Your task to perform on an android device: turn off javascript in the chrome app Image 0: 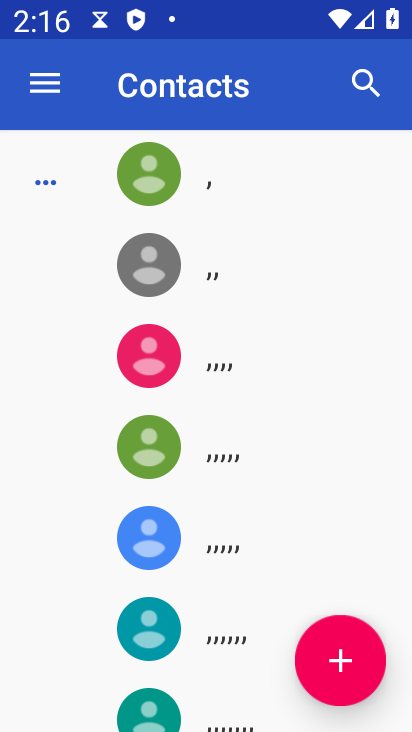
Step 0: press back button
Your task to perform on an android device: turn off javascript in the chrome app Image 1: 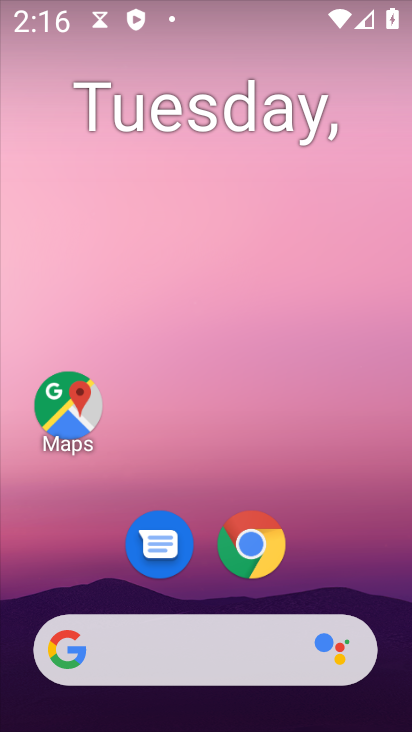
Step 1: drag from (348, 572) to (263, 9)
Your task to perform on an android device: turn off javascript in the chrome app Image 2: 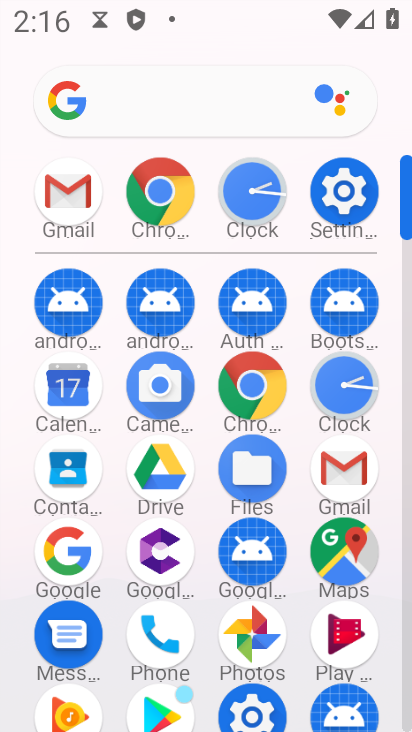
Step 2: drag from (6, 435) to (11, 266)
Your task to perform on an android device: turn off javascript in the chrome app Image 3: 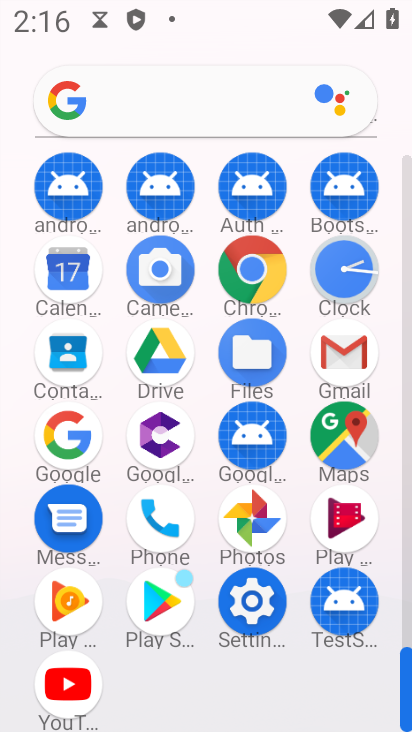
Step 3: click (247, 264)
Your task to perform on an android device: turn off javascript in the chrome app Image 4: 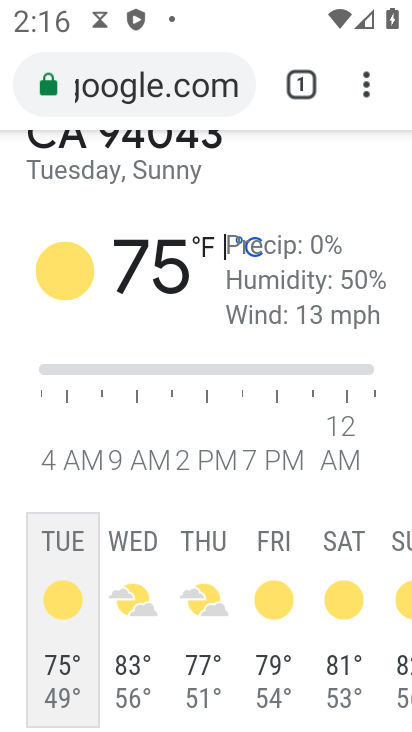
Step 4: drag from (362, 83) to (143, 595)
Your task to perform on an android device: turn off javascript in the chrome app Image 5: 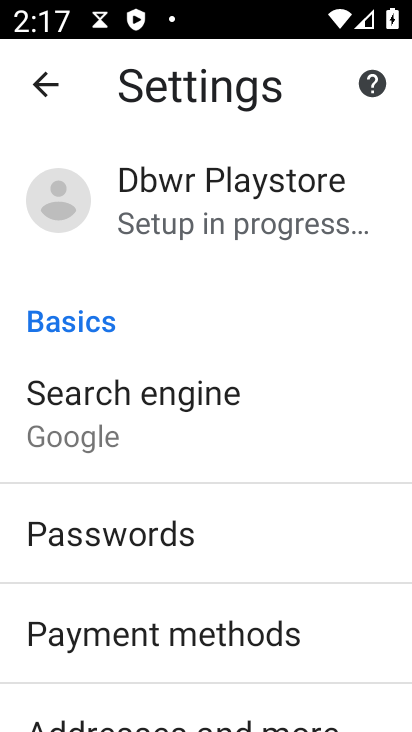
Step 5: drag from (277, 546) to (284, 233)
Your task to perform on an android device: turn off javascript in the chrome app Image 6: 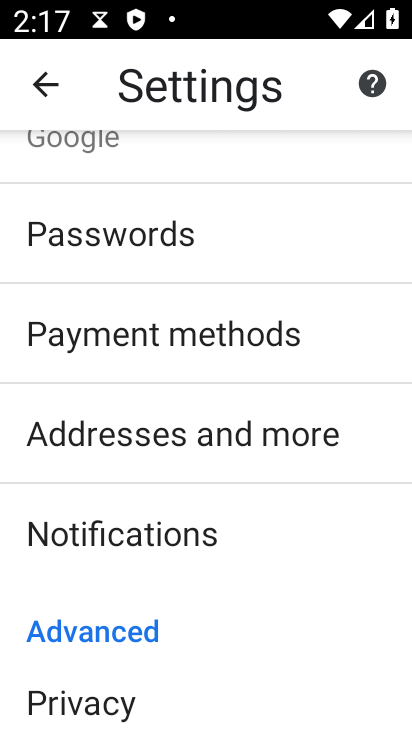
Step 6: drag from (221, 580) to (256, 182)
Your task to perform on an android device: turn off javascript in the chrome app Image 7: 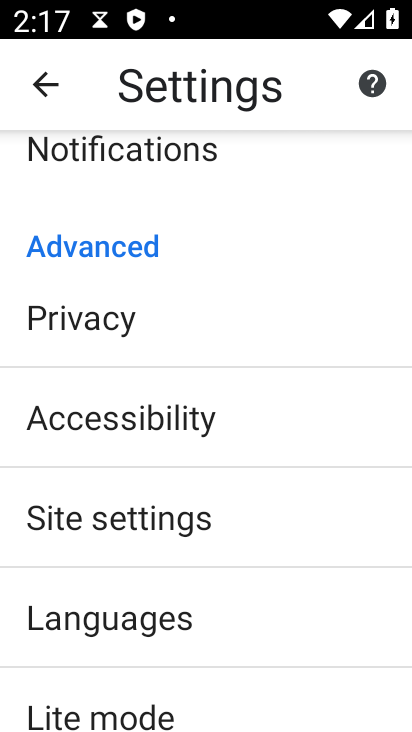
Step 7: drag from (203, 614) to (235, 208)
Your task to perform on an android device: turn off javascript in the chrome app Image 8: 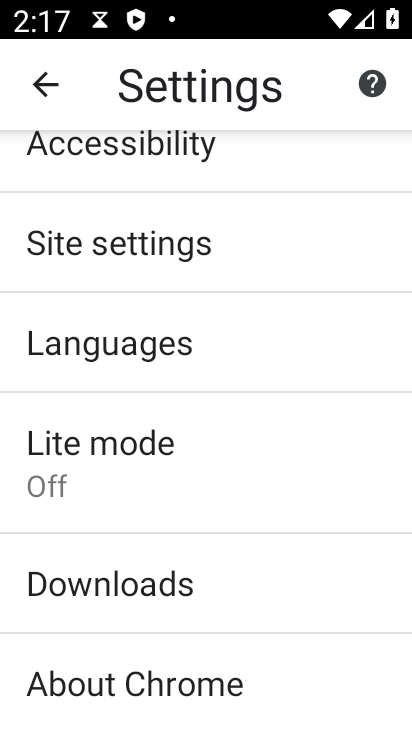
Step 8: drag from (180, 655) to (225, 240)
Your task to perform on an android device: turn off javascript in the chrome app Image 9: 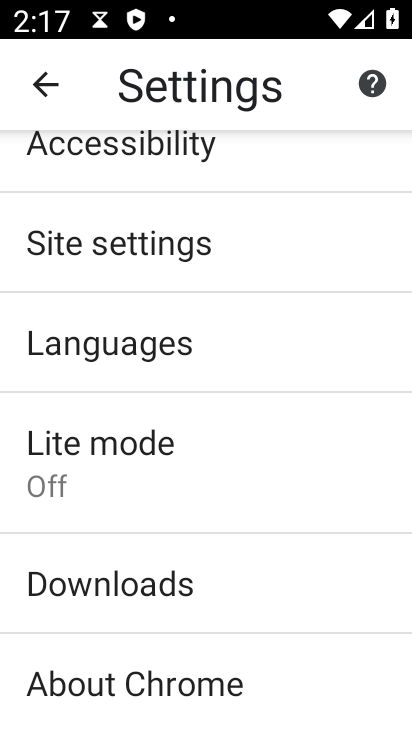
Step 9: click (167, 244)
Your task to perform on an android device: turn off javascript in the chrome app Image 10: 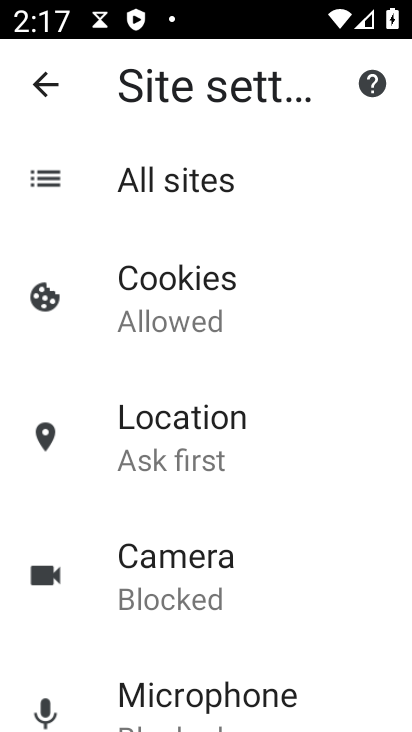
Step 10: drag from (244, 607) to (278, 205)
Your task to perform on an android device: turn off javascript in the chrome app Image 11: 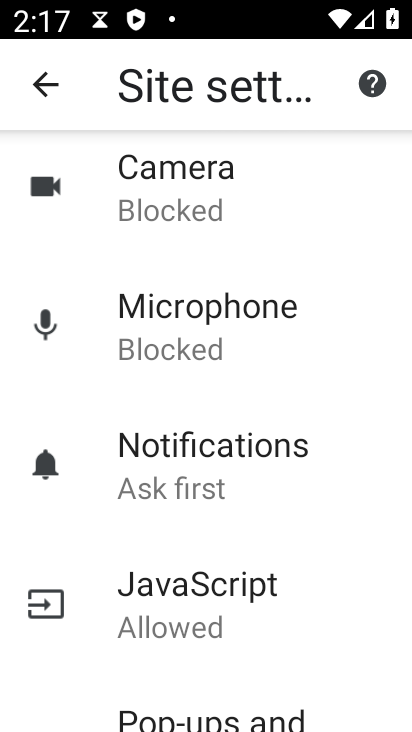
Step 11: click (212, 601)
Your task to perform on an android device: turn off javascript in the chrome app Image 12: 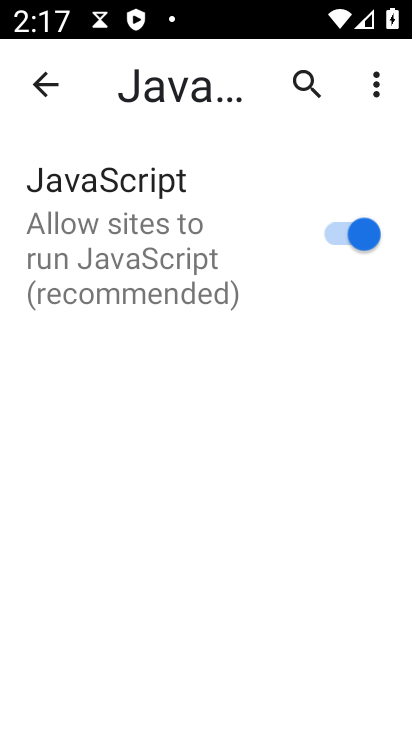
Step 12: click (338, 231)
Your task to perform on an android device: turn off javascript in the chrome app Image 13: 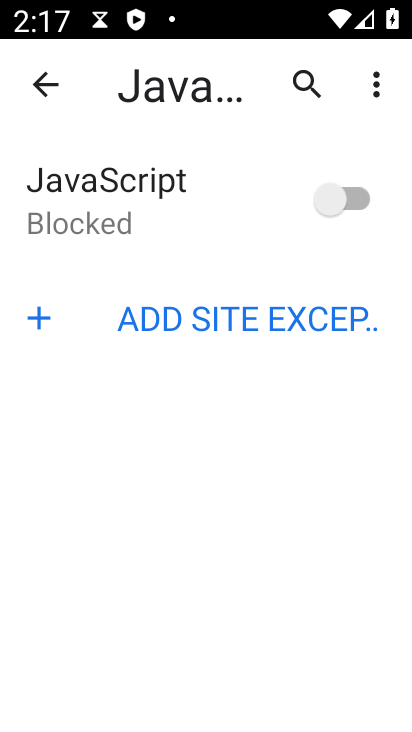
Step 13: task complete